Your task to perform on an android device: search for starred emails in the gmail app Image 0: 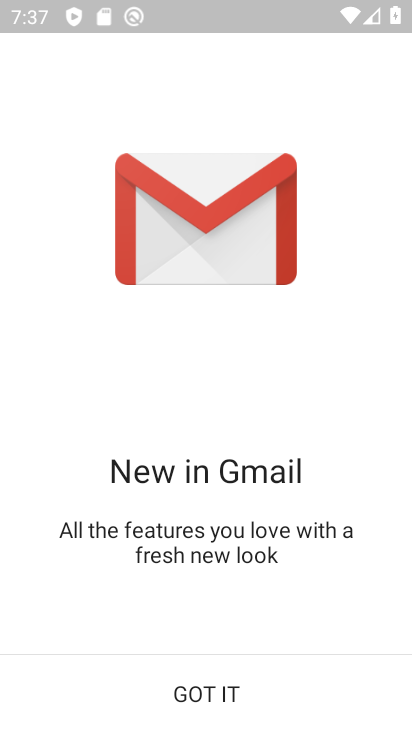
Step 0: click (201, 698)
Your task to perform on an android device: search for starred emails in the gmail app Image 1: 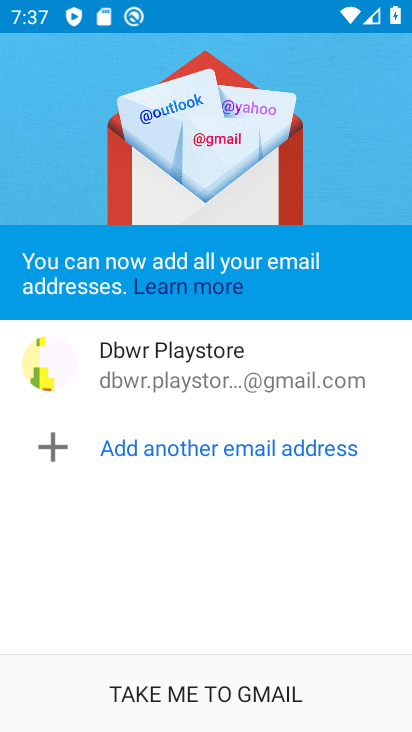
Step 1: click (229, 699)
Your task to perform on an android device: search for starred emails in the gmail app Image 2: 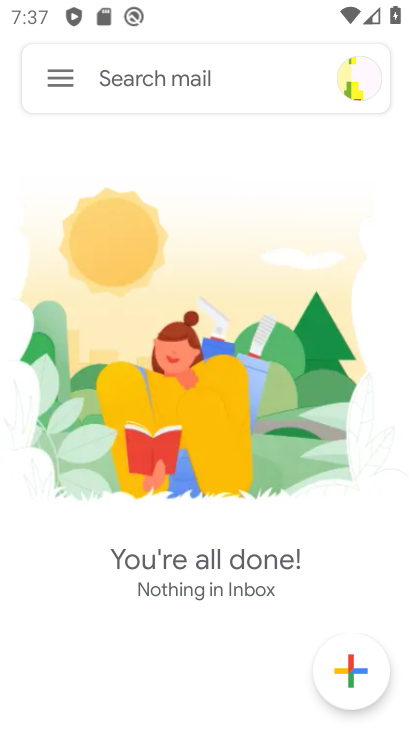
Step 2: click (54, 75)
Your task to perform on an android device: search for starred emails in the gmail app Image 3: 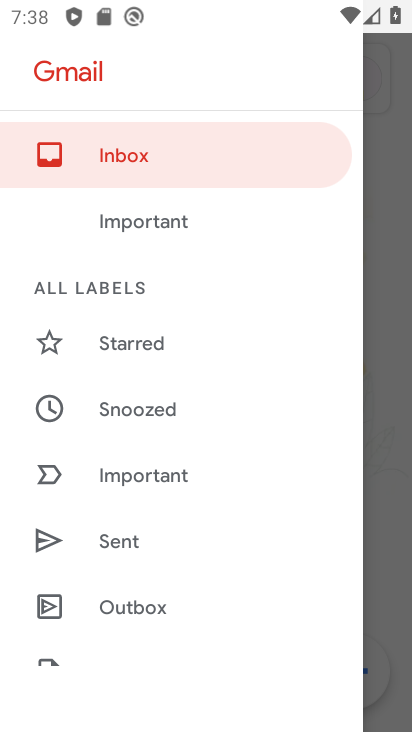
Step 3: click (85, 342)
Your task to perform on an android device: search for starred emails in the gmail app Image 4: 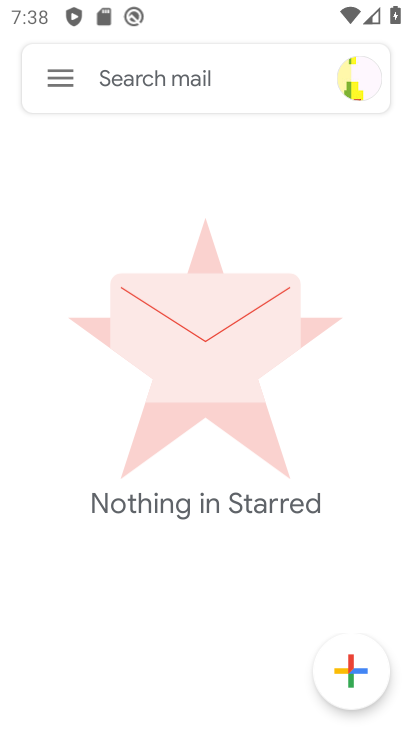
Step 4: task complete